Your task to perform on an android device: turn on wifi Image 0: 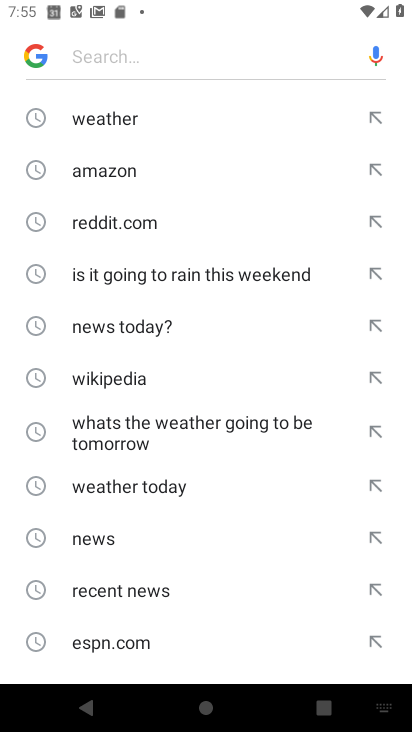
Step 0: drag from (270, 493) to (382, 226)
Your task to perform on an android device: turn on wifi Image 1: 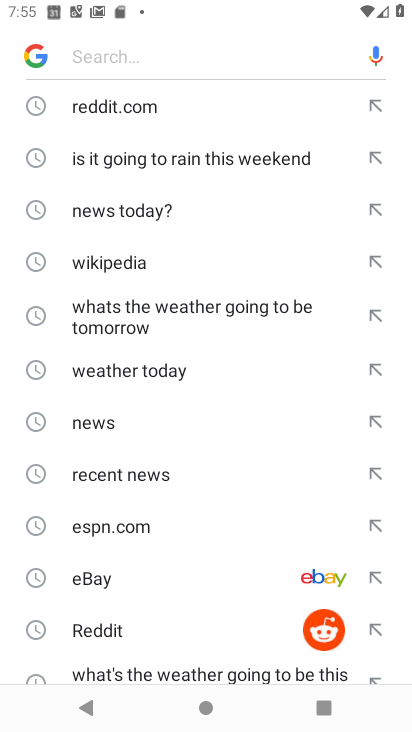
Step 1: press home button
Your task to perform on an android device: turn on wifi Image 2: 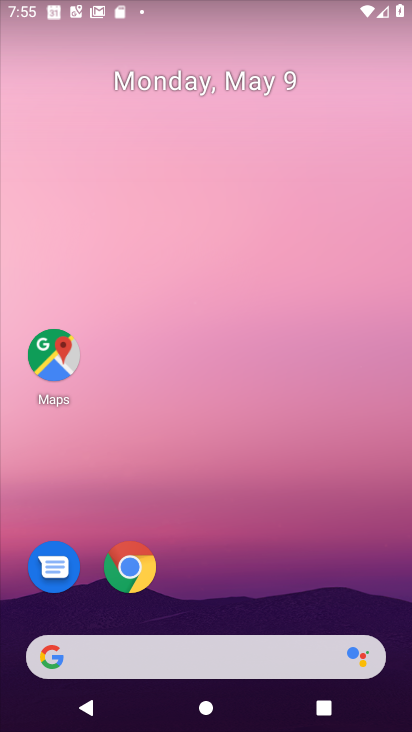
Step 2: click (346, 171)
Your task to perform on an android device: turn on wifi Image 3: 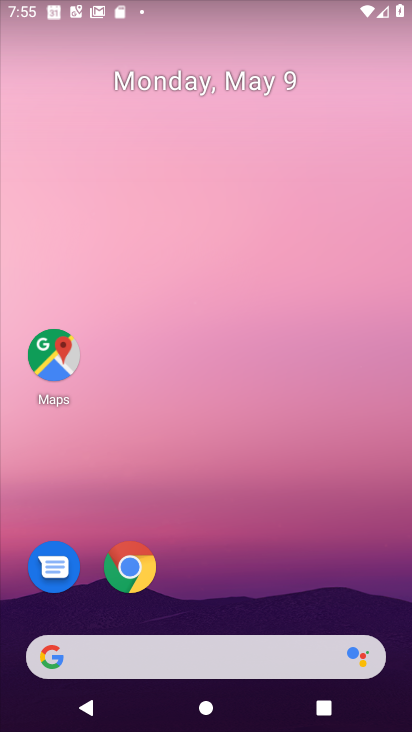
Step 3: drag from (239, 506) to (406, 179)
Your task to perform on an android device: turn on wifi Image 4: 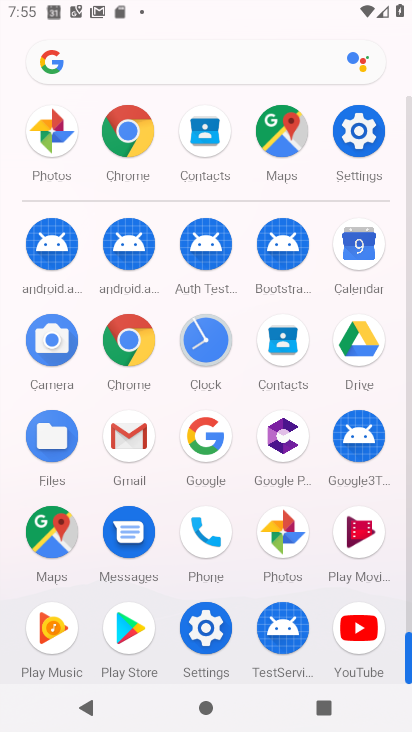
Step 4: click (364, 125)
Your task to perform on an android device: turn on wifi Image 5: 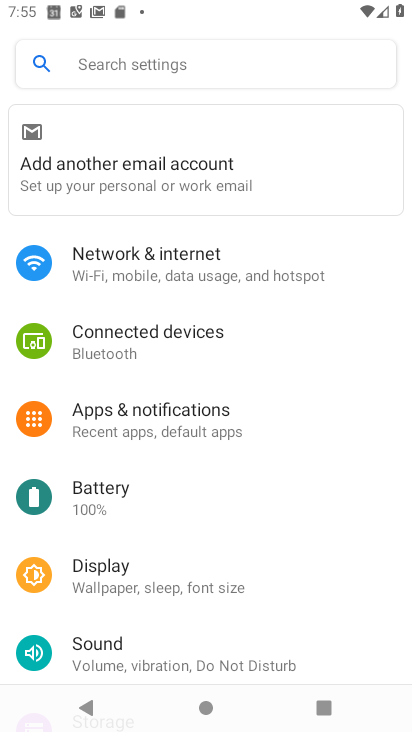
Step 5: click (189, 284)
Your task to perform on an android device: turn on wifi Image 6: 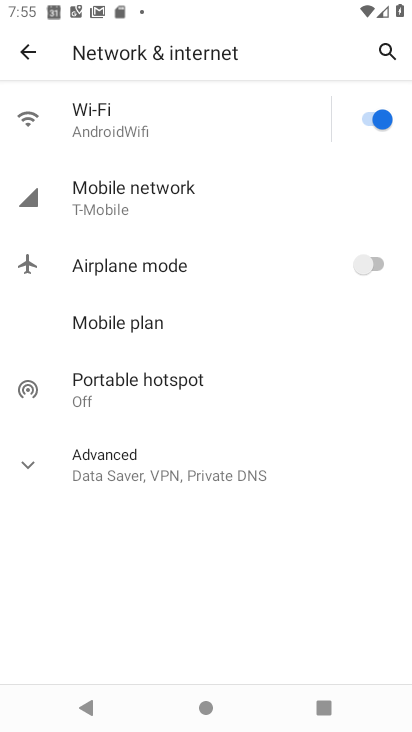
Step 6: click (200, 129)
Your task to perform on an android device: turn on wifi Image 7: 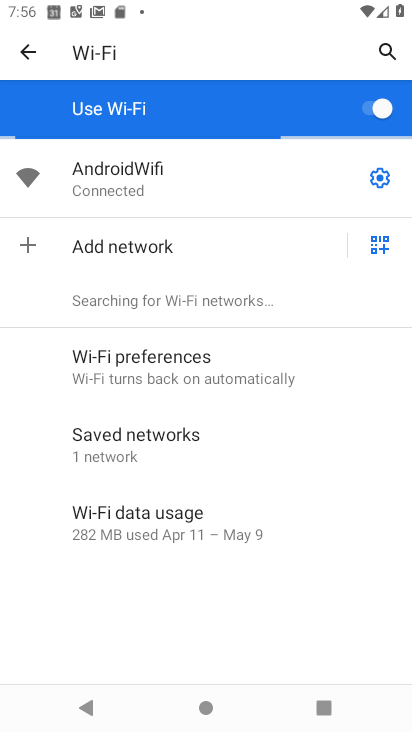
Step 7: task complete